Your task to perform on an android device: Search for vegetarian restaurants on Maps Image 0: 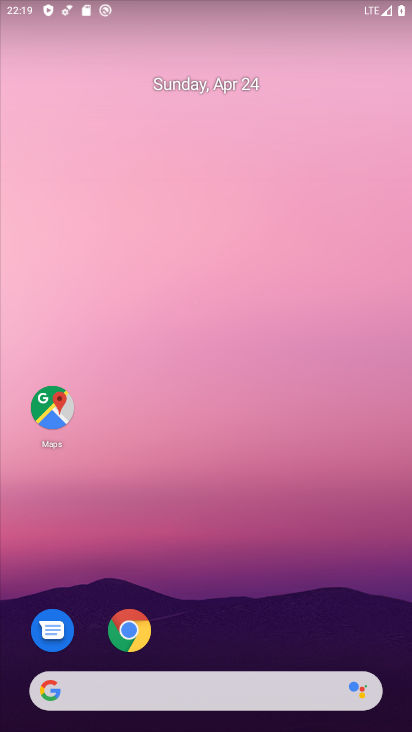
Step 0: click (81, 414)
Your task to perform on an android device: Search for vegetarian restaurants on Maps Image 1: 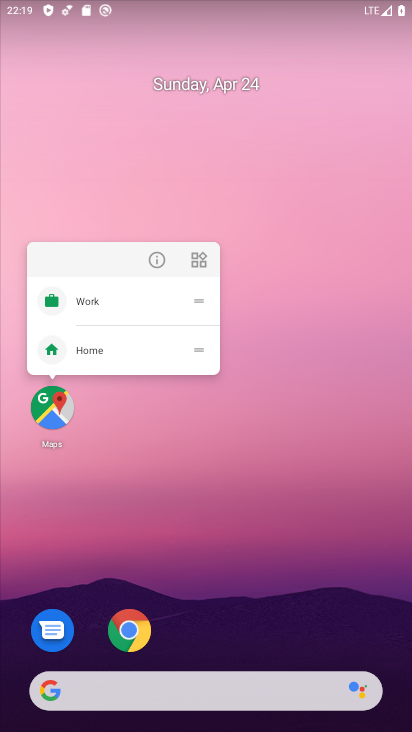
Step 1: click (38, 404)
Your task to perform on an android device: Search for vegetarian restaurants on Maps Image 2: 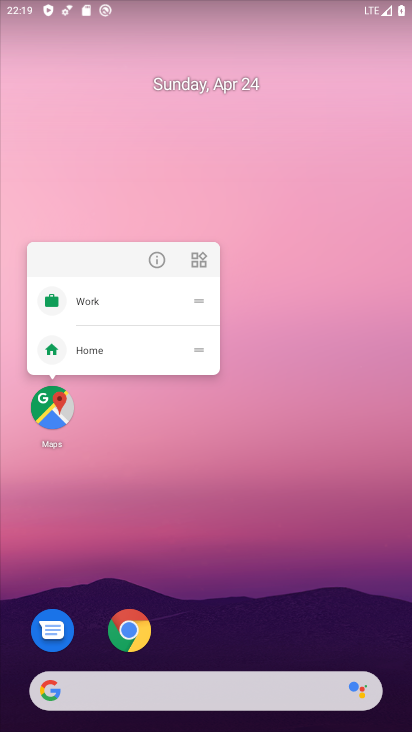
Step 2: click (50, 408)
Your task to perform on an android device: Search for vegetarian restaurants on Maps Image 3: 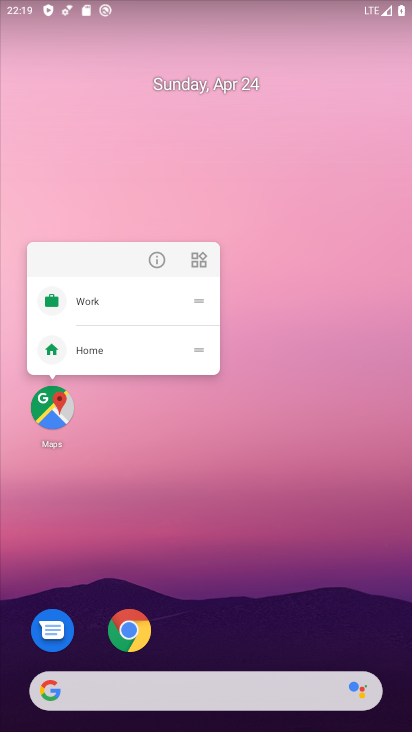
Step 3: click (58, 398)
Your task to perform on an android device: Search for vegetarian restaurants on Maps Image 4: 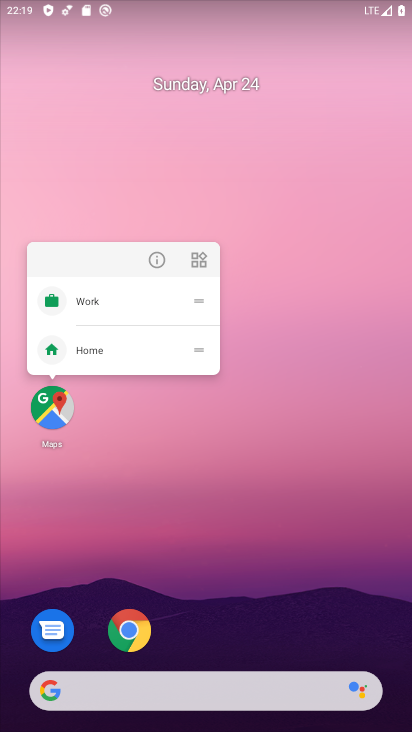
Step 4: click (51, 418)
Your task to perform on an android device: Search for vegetarian restaurants on Maps Image 5: 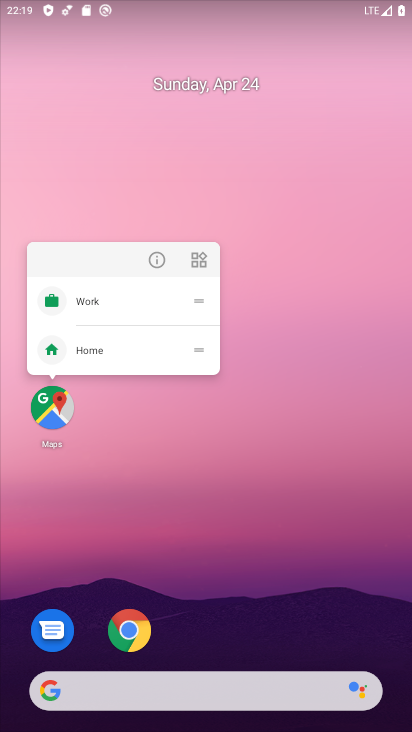
Step 5: click (63, 405)
Your task to perform on an android device: Search for vegetarian restaurants on Maps Image 6: 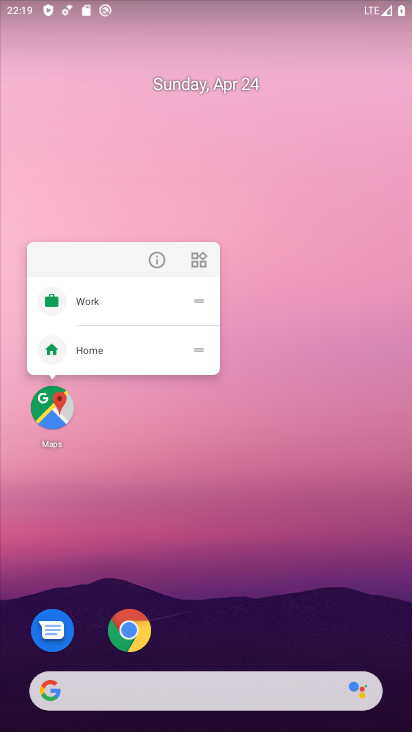
Step 6: click (63, 405)
Your task to perform on an android device: Search for vegetarian restaurants on Maps Image 7: 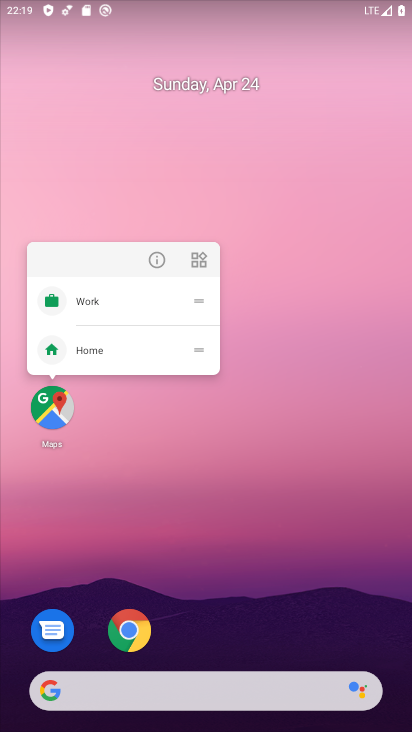
Step 7: click (42, 396)
Your task to perform on an android device: Search for vegetarian restaurants on Maps Image 8: 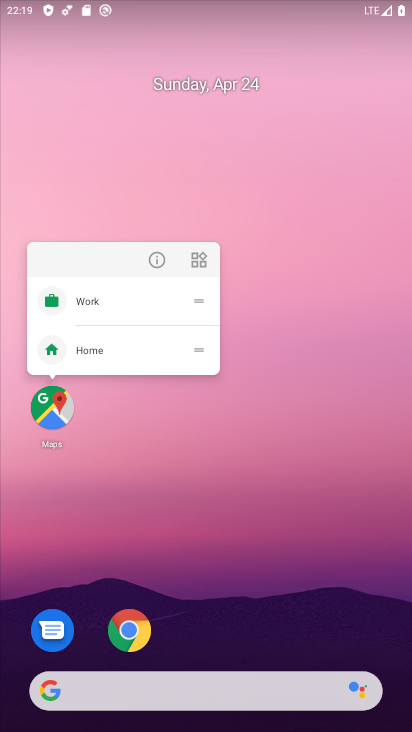
Step 8: click (62, 432)
Your task to perform on an android device: Search for vegetarian restaurants on Maps Image 9: 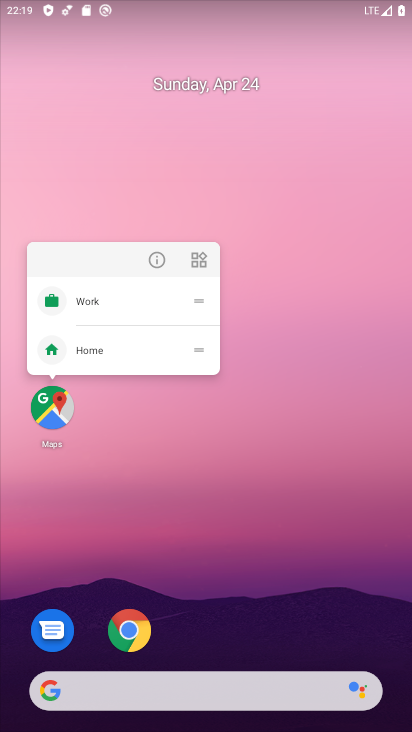
Step 9: click (55, 411)
Your task to perform on an android device: Search for vegetarian restaurants on Maps Image 10: 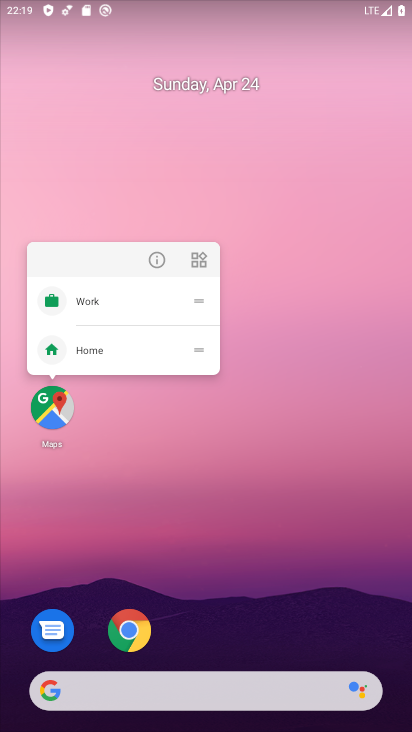
Step 10: click (68, 403)
Your task to perform on an android device: Search for vegetarian restaurants on Maps Image 11: 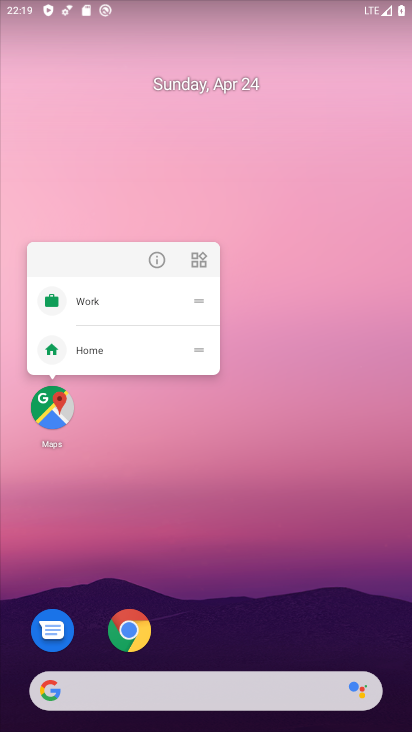
Step 11: click (58, 395)
Your task to perform on an android device: Search for vegetarian restaurants on Maps Image 12: 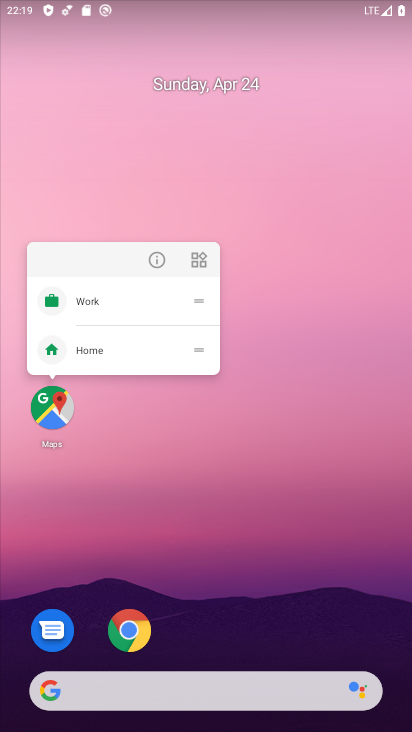
Step 12: drag from (221, 665) to (325, 60)
Your task to perform on an android device: Search for vegetarian restaurants on Maps Image 13: 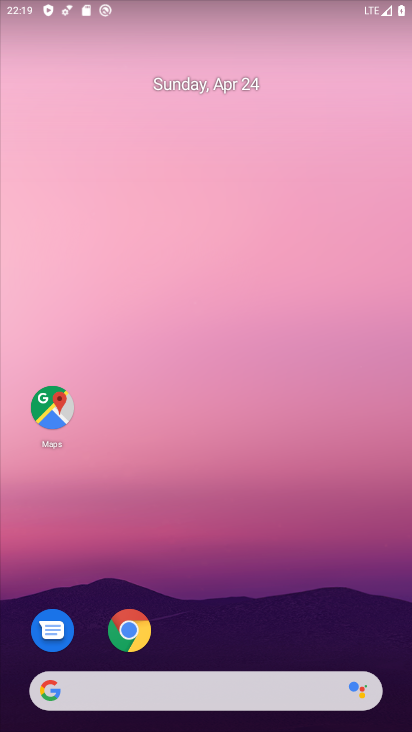
Step 13: drag from (212, 660) to (370, 8)
Your task to perform on an android device: Search for vegetarian restaurants on Maps Image 14: 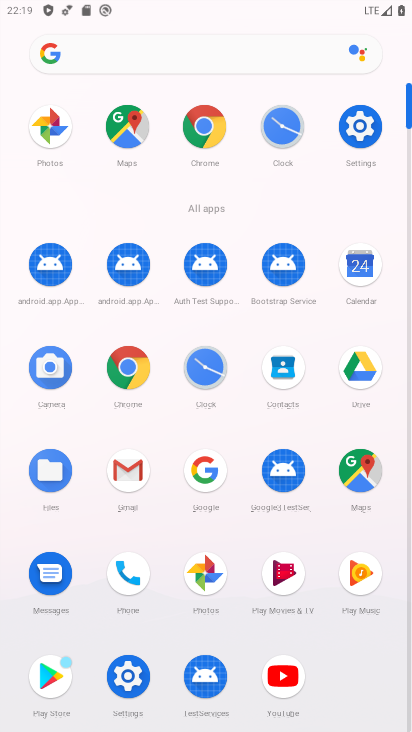
Step 14: click (129, 122)
Your task to perform on an android device: Search for vegetarian restaurants on Maps Image 15: 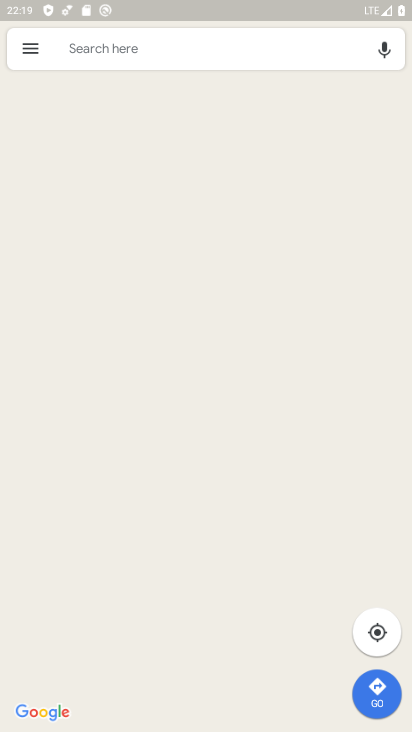
Step 15: click (141, 57)
Your task to perform on an android device: Search for vegetarian restaurants on Maps Image 16: 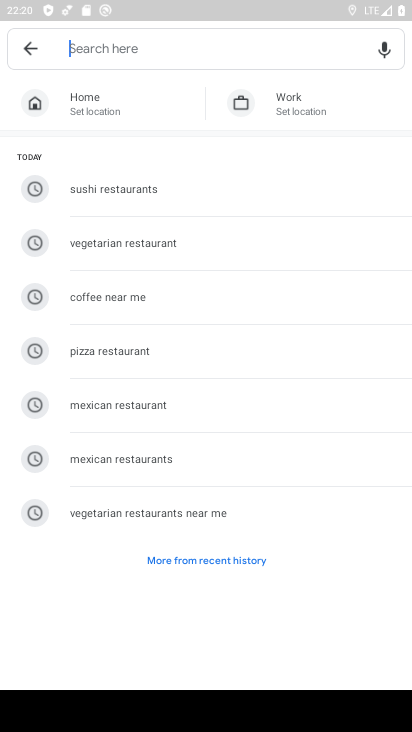
Step 16: click (129, 247)
Your task to perform on an android device: Search for vegetarian restaurants on Maps Image 17: 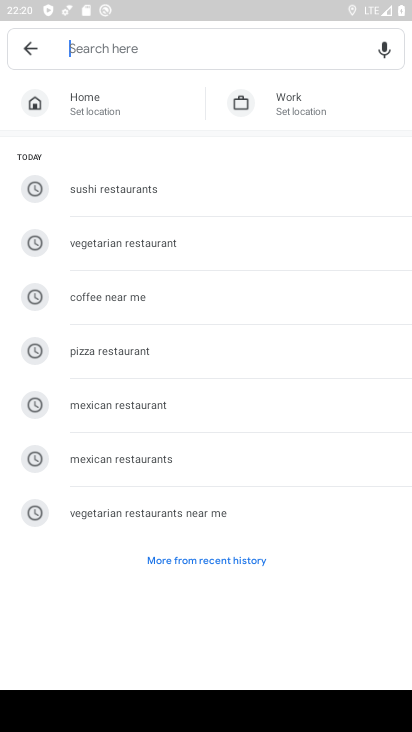
Step 17: type "vegetarian "
Your task to perform on an android device: Search for vegetarian restaurants on Maps Image 18: 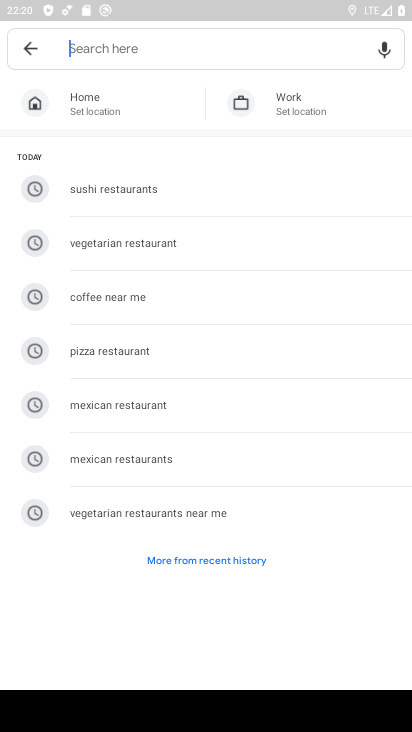
Step 18: click (129, 247)
Your task to perform on an android device: Search for vegetarian restaurants on Maps Image 19: 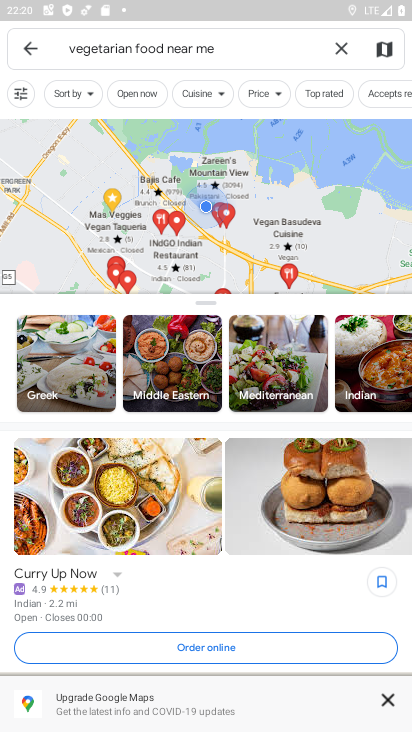
Step 19: task complete